Your task to perform on an android device: Open Maps and search for coffee Image 0: 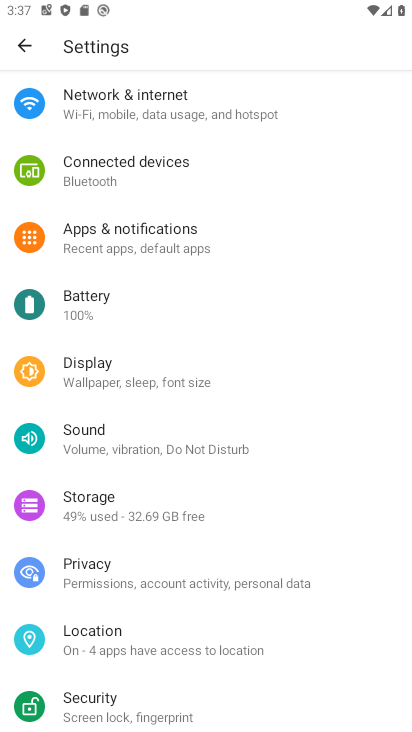
Step 0: press back button
Your task to perform on an android device: Open Maps and search for coffee Image 1: 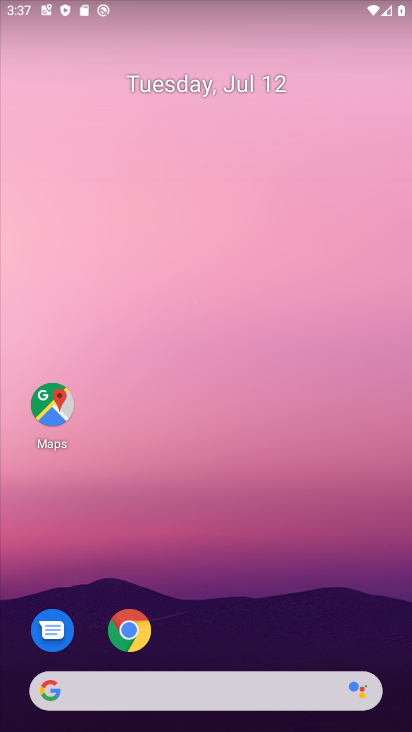
Step 1: drag from (250, 657) to (164, 165)
Your task to perform on an android device: Open Maps and search for coffee Image 2: 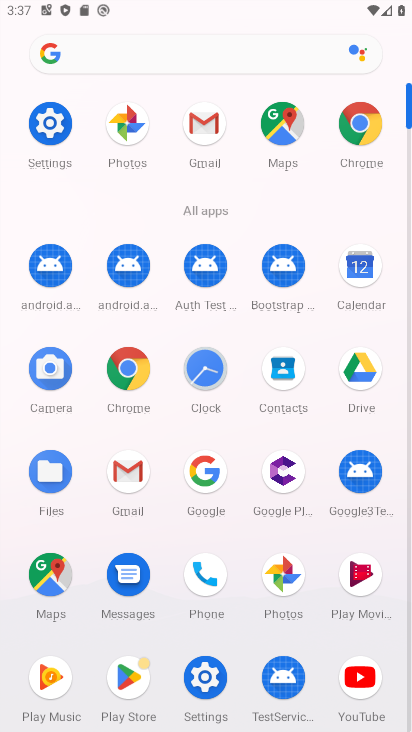
Step 2: click (53, 572)
Your task to perform on an android device: Open Maps and search for coffee Image 3: 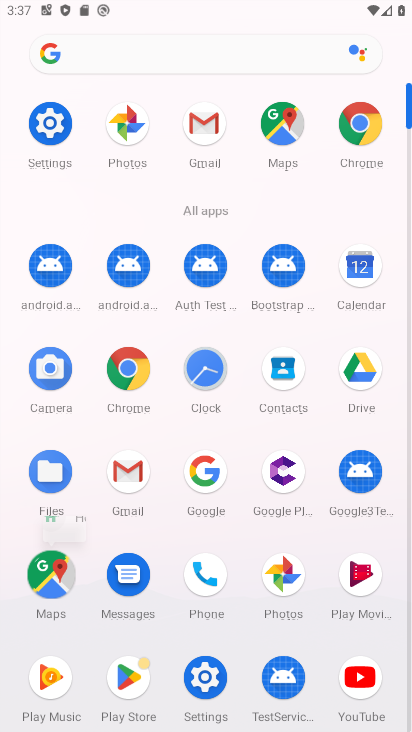
Step 3: click (53, 572)
Your task to perform on an android device: Open Maps and search for coffee Image 4: 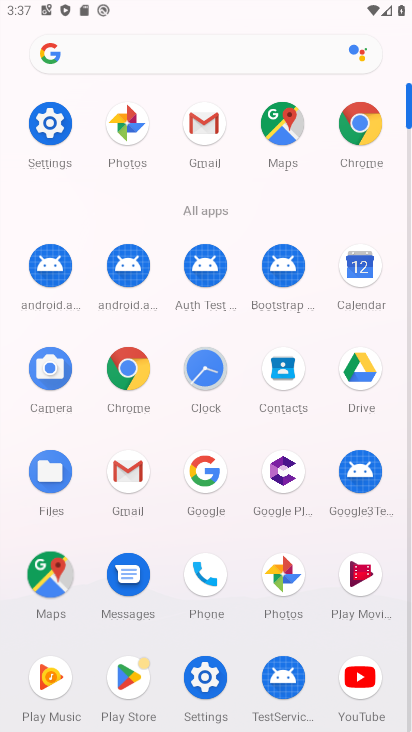
Step 4: click (52, 570)
Your task to perform on an android device: Open Maps and search for coffee Image 5: 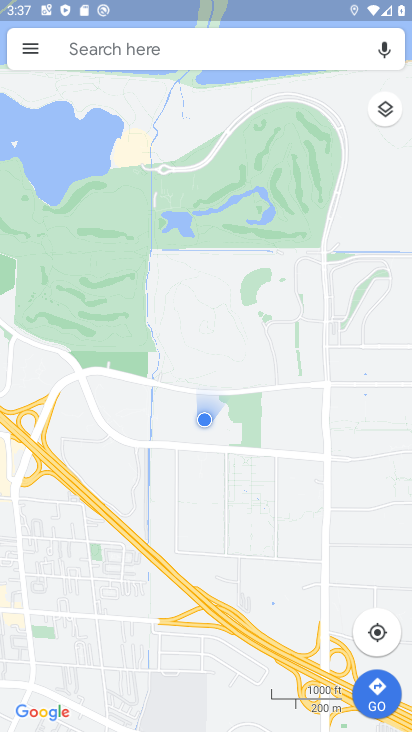
Step 5: click (94, 40)
Your task to perform on an android device: Open Maps and search for coffee Image 6: 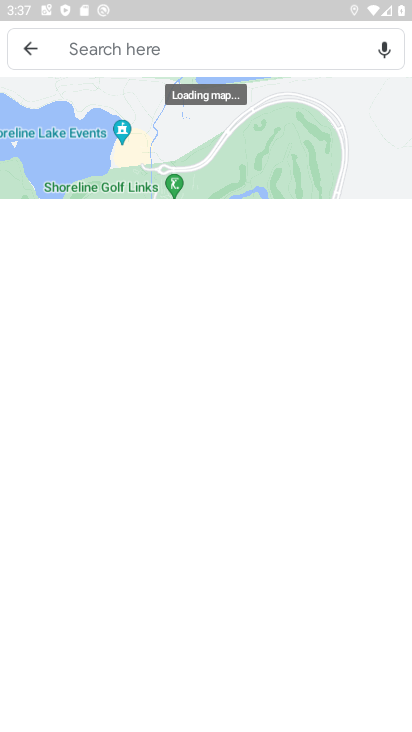
Step 6: click (94, 40)
Your task to perform on an android device: Open Maps and search for coffee Image 7: 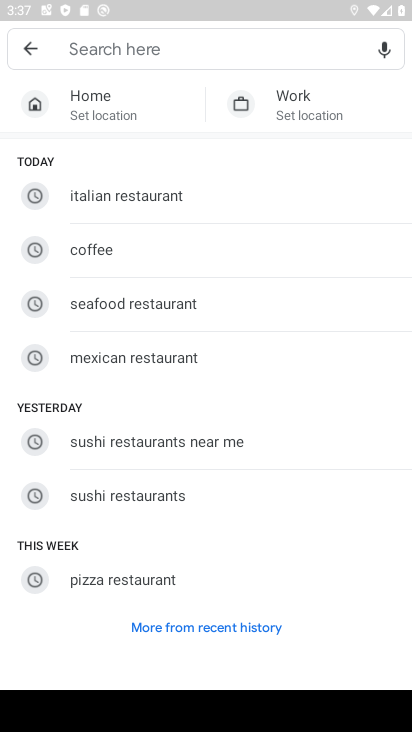
Step 7: click (104, 246)
Your task to perform on an android device: Open Maps and search for coffee Image 8: 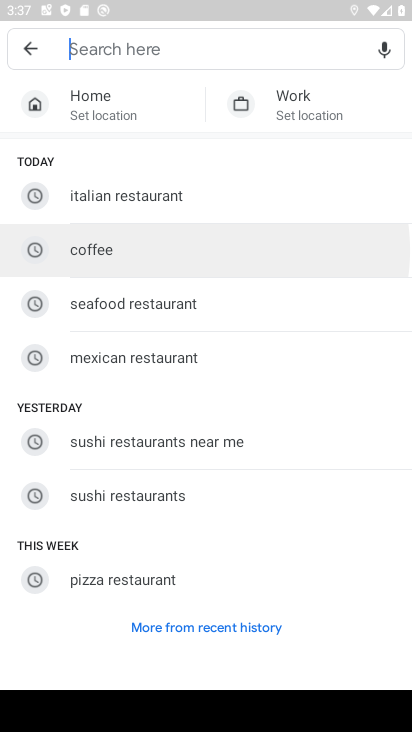
Step 8: click (104, 246)
Your task to perform on an android device: Open Maps and search for coffee Image 9: 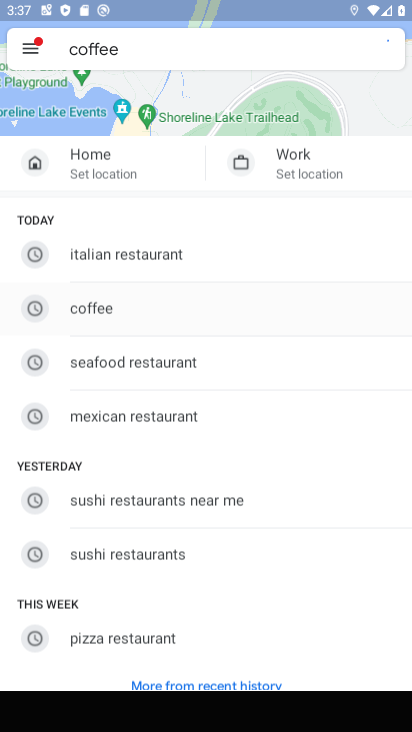
Step 9: click (106, 246)
Your task to perform on an android device: Open Maps and search for coffee Image 10: 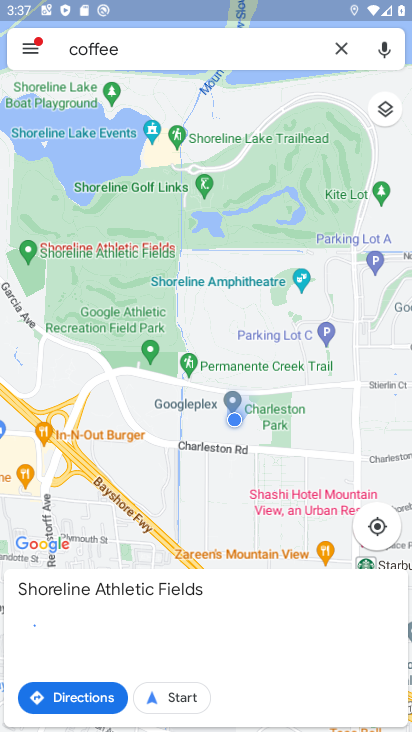
Step 10: task complete